Your task to perform on an android device: turn off location Image 0: 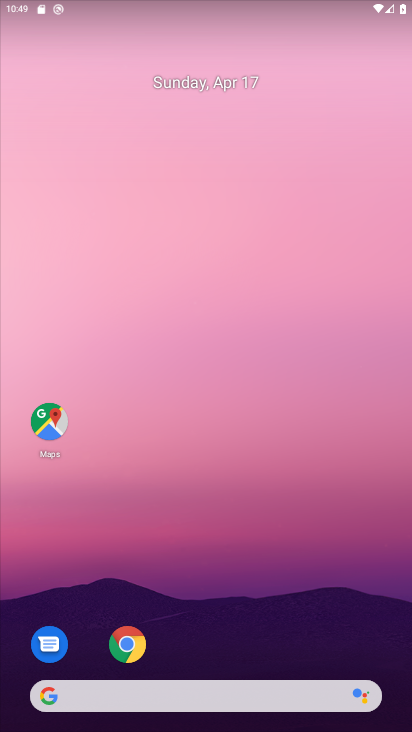
Step 0: drag from (195, 622) to (298, 12)
Your task to perform on an android device: turn off location Image 1: 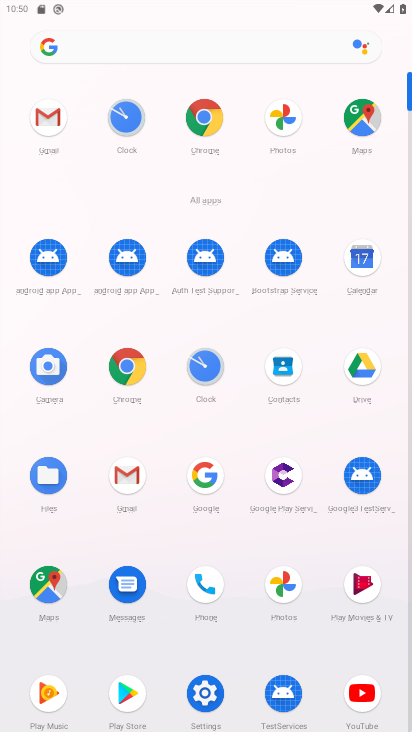
Step 1: click (204, 685)
Your task to perform on an android device: turn off location Image 2: 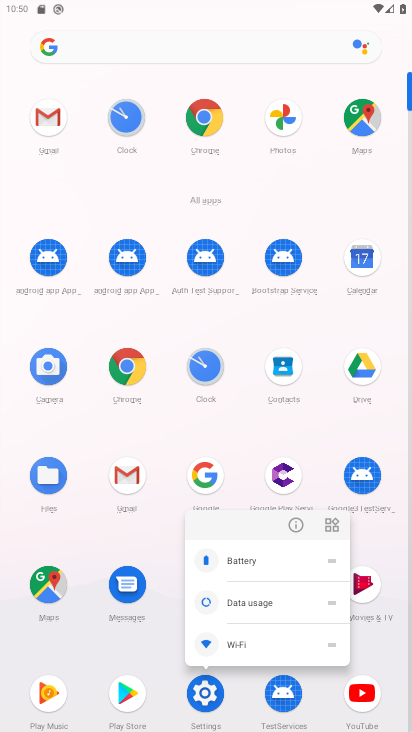
Step 2: click (206, 700)
Your task to perform on an android device: turn off location Image 3: 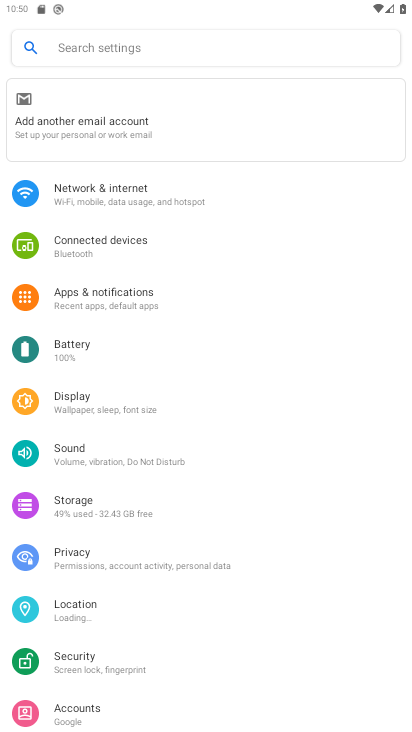
Step 3: click (76, 612)
Your task to perform on an android device: turn off location Image 4: 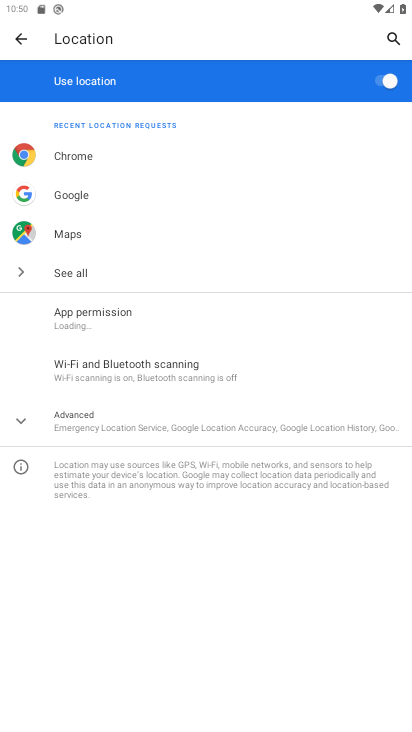
Step 4: click (379, 76)
Your task to perform on an android device: turn off location Image 5: 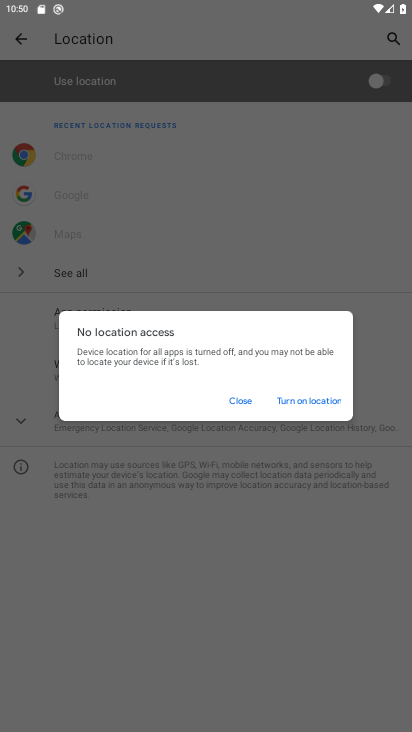
Step 5: click (244, 396)
Your task to perform on an android device: turn off location Image 6: 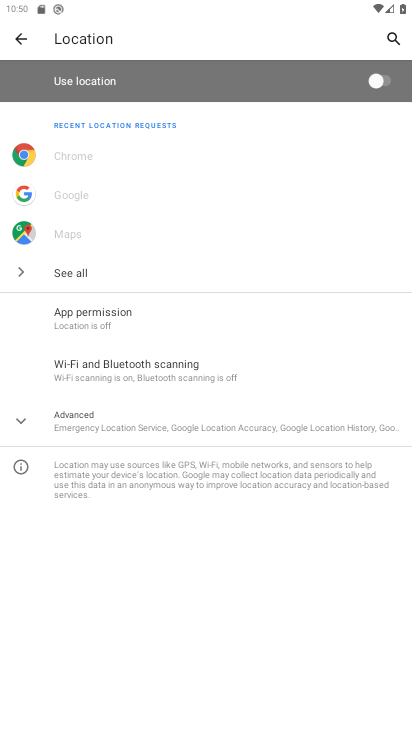
Step 6: task complete